Your task to perform on an android device: open app "Google Drive" (install if not already installed) Image 0: 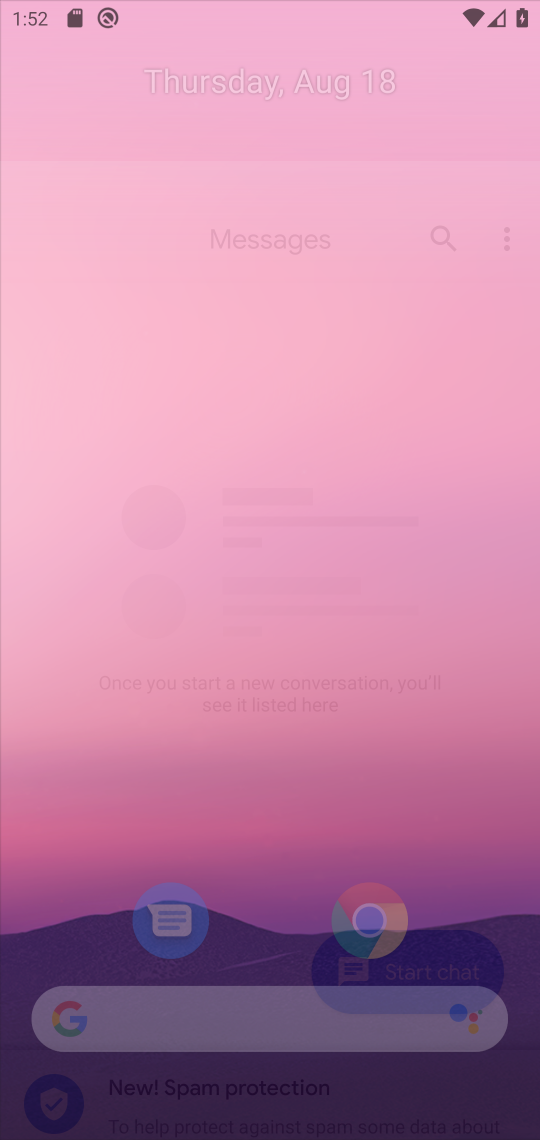
Step 0: drag from (300, 435) to (302, 27)
Your task to perform on an android device: open app "Google Drive" (install if not already installed) Image 1: 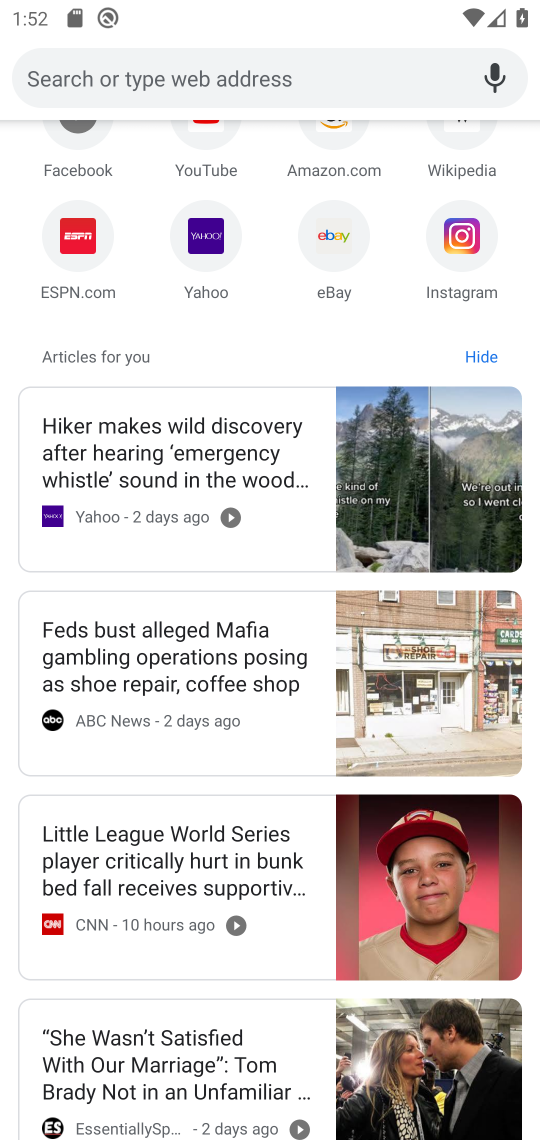
Step 1: press home button
Your task to perform on an android device: open app "Google Drive" (install if not already installed) Image 2: 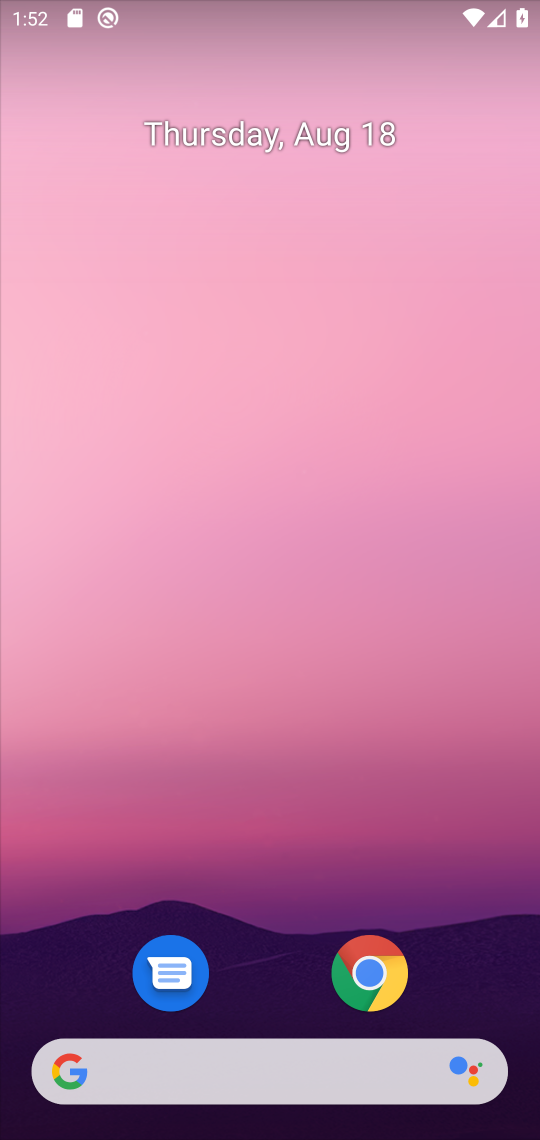
Step 2: drag from (288, 1035) to (342, 432)
Your task to perform on an android device: open app "Google Drive" (install if not already installed) Image 3: 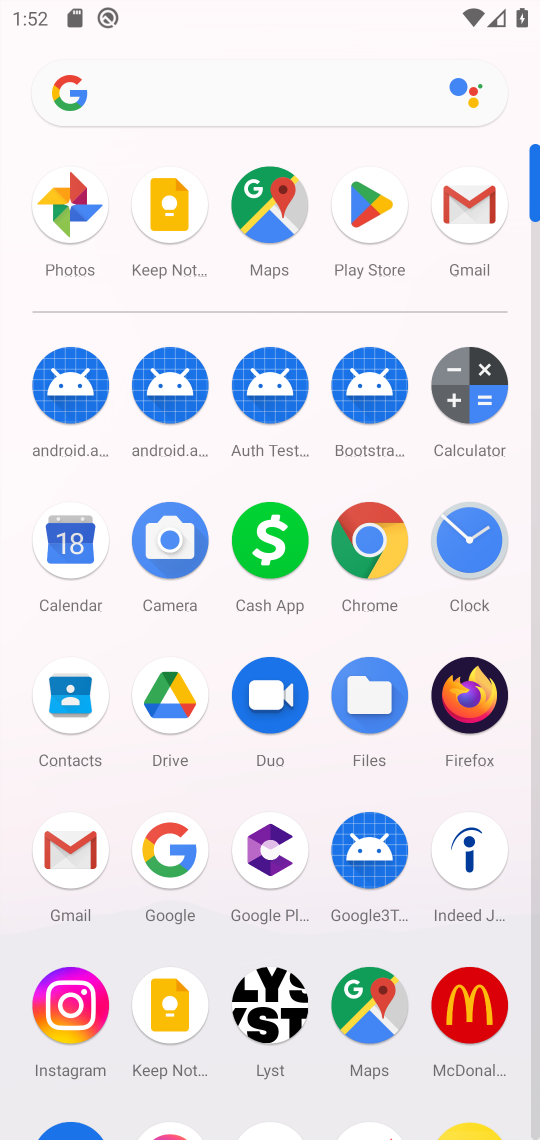
Step 3: click (342, 432)
Your task to perform on an android device: open app "Google Drive" (install if not already installed) Image 4: 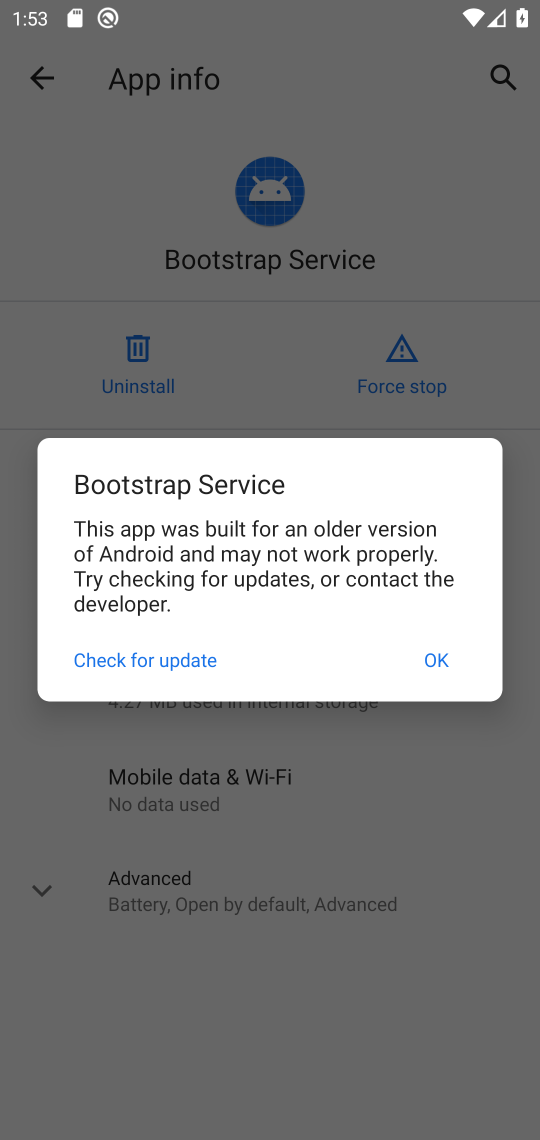
Step 4: click (392, 625)
Your task to perform on an android device: open app "Google Drive" (install if not already installed) Image 5: 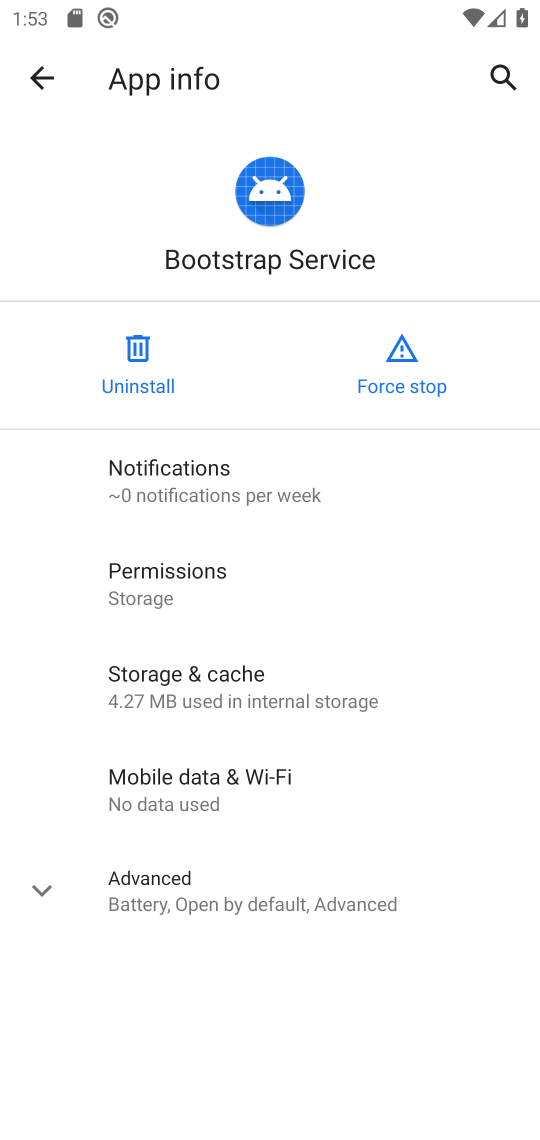
Step 5: press home button
Your task to perform on an android device: open app "Google Drive" (install if not already installed) Image 6: 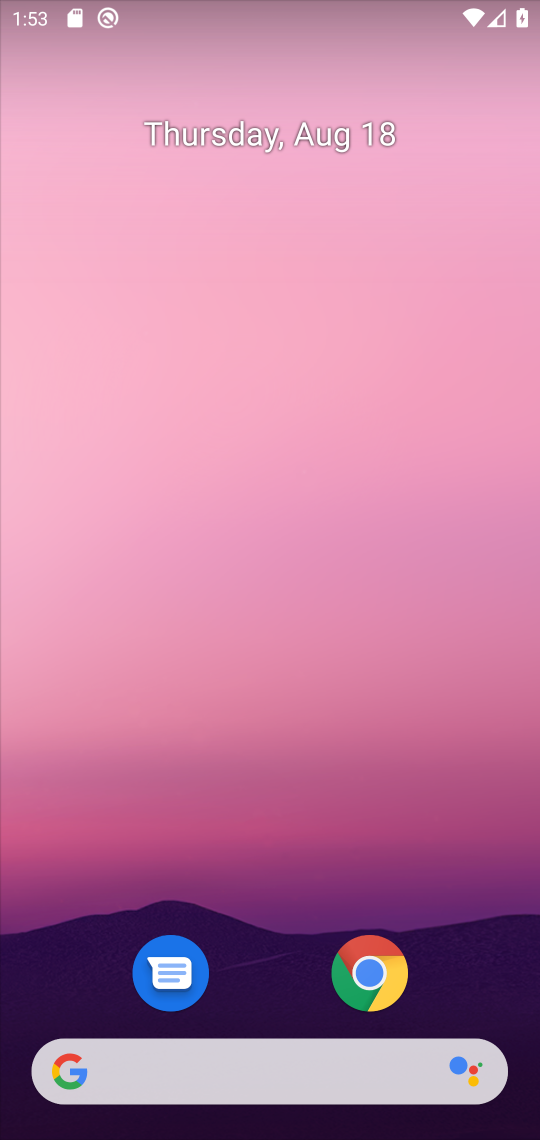
Step 6: drag from (292, 994) to (296, 109)
Your task to perform on an android device: open app "Google Drive" (install if not already installed) Image 7: 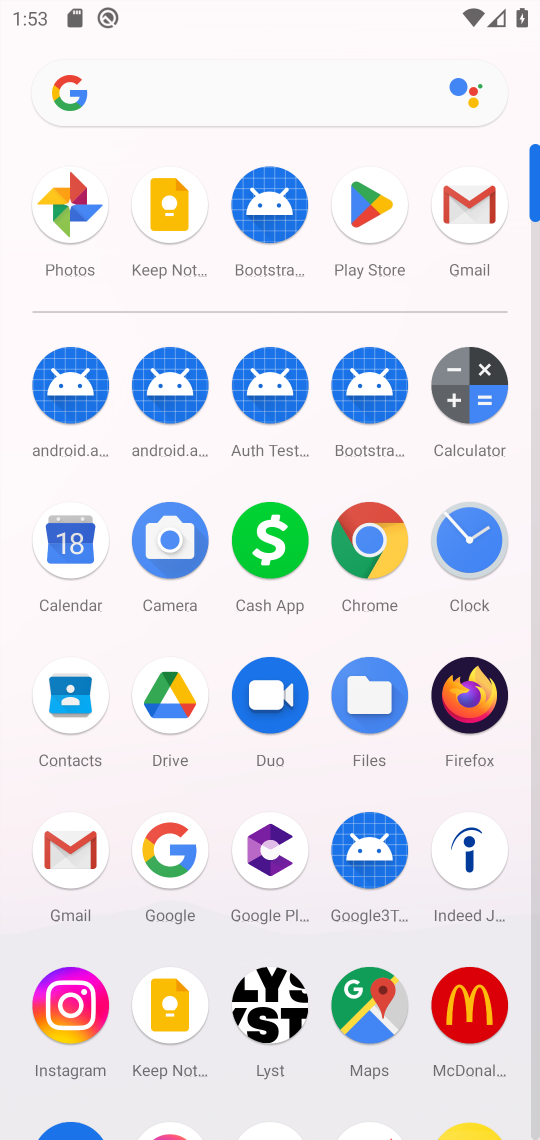
Step 7: click (176, 708)
Your task to perform on an android device: open app "Google Drive" (install if not already installed) Image 8: 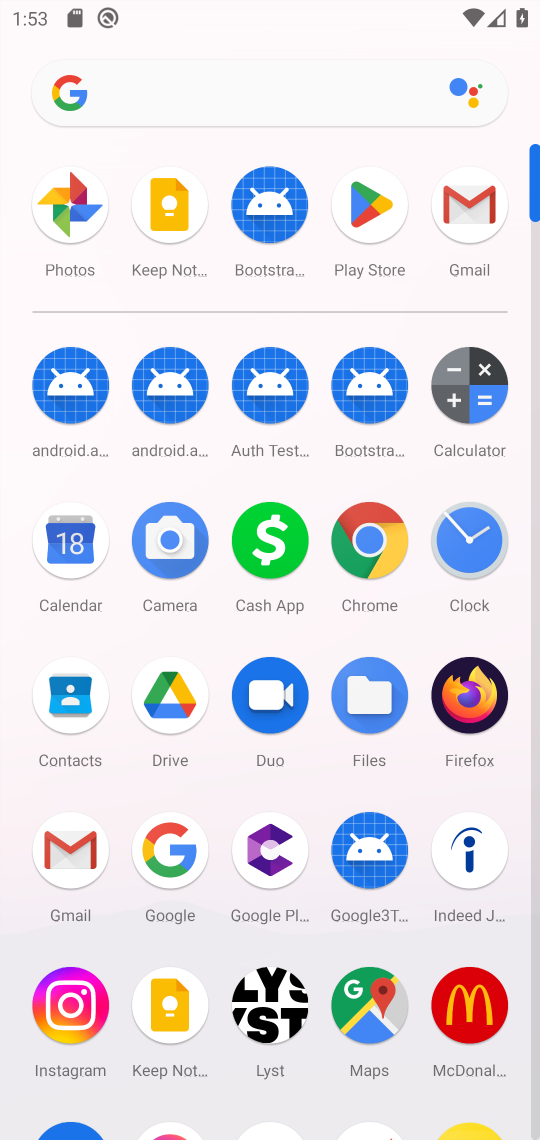
Step 8: task complete